Your task to perform on an android device: toggle sleep mode Image 0: 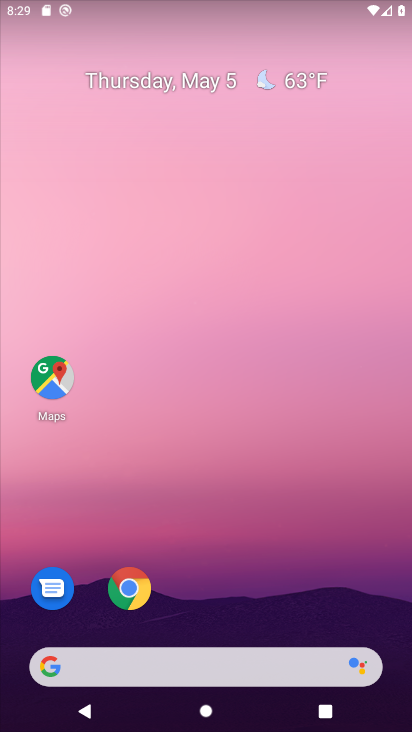
Step 0: press home button
Your task to perform on an android device: toggle sleep mode Image 1: 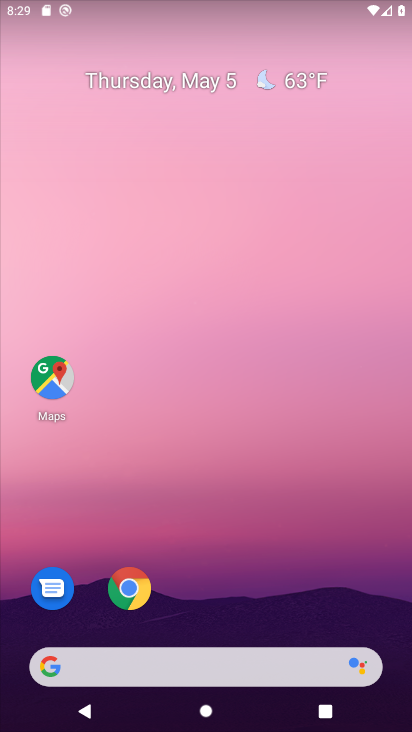
Step 1: drag from (218, 633) to (216, 108)
Your task to perform on an android device: toggle sleep mode Image 2: 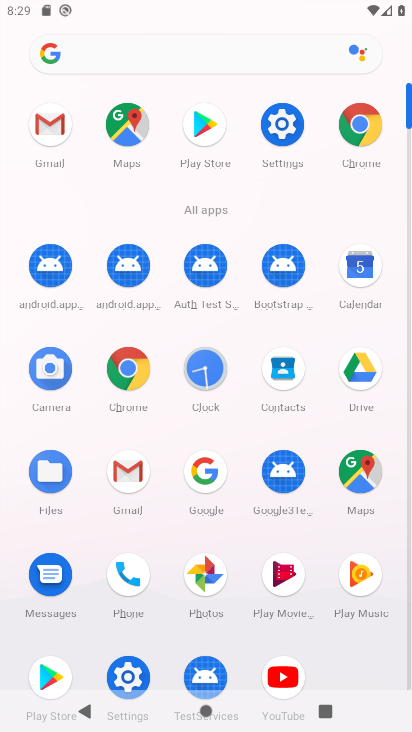
Step 2: click (280, 119)
Your task to perform on an android device: toggle sleep mode Image 3: 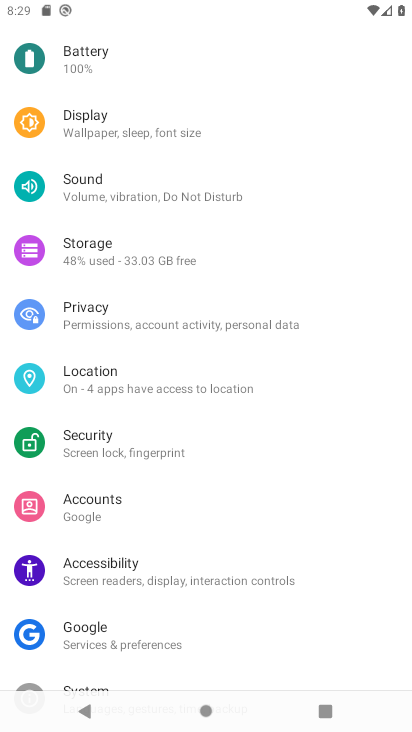
Step 3: click (122, 113)
Your task to perform on an android device: toggle sleep mode Image 4: 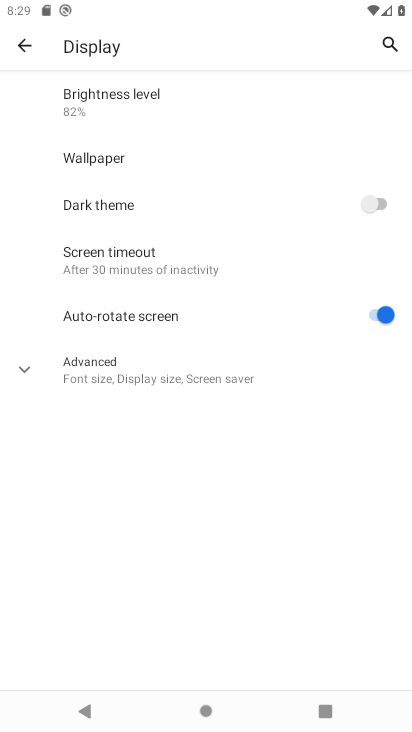
Step 4: click (23, 370)
Your task to perform on an android device: toggle sleep mode Image 5: 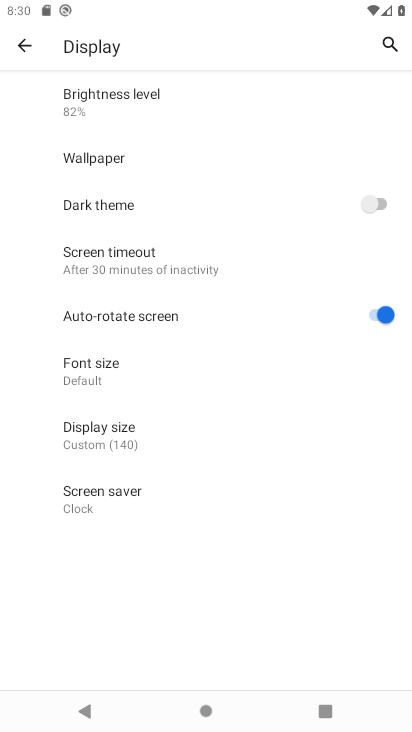
Step 5: task complete